Your task to perform on an android device: check google app version Image 0: 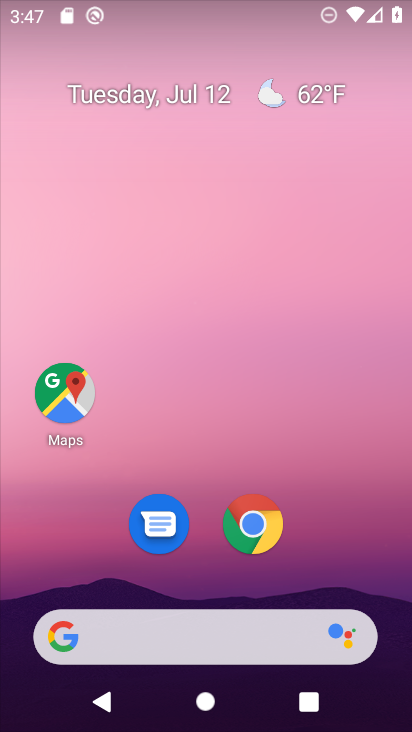
Step 0: drag from (325, 493) to (322, 1)
Your task to perform on an android device: check google app version Image 1: 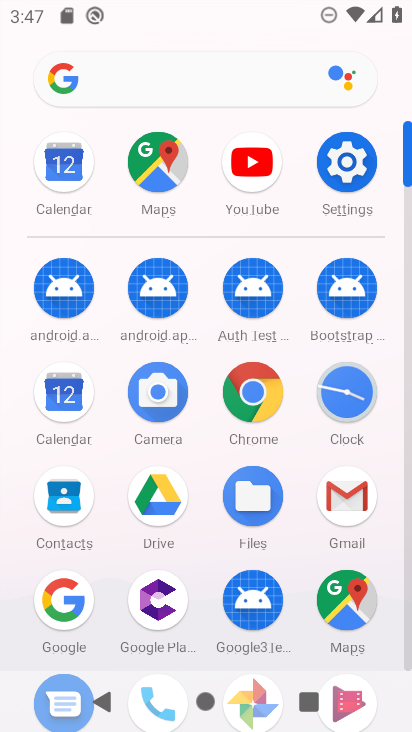
Step 1: click (68, 600)
Your task to perform on an android device: check google app version Image 2: 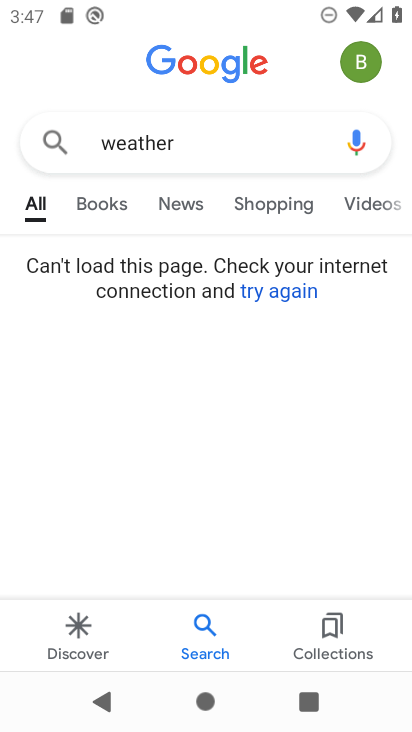
Step 2: click (364, 58)
Your task to perform on an android device: check google app version Image 3: 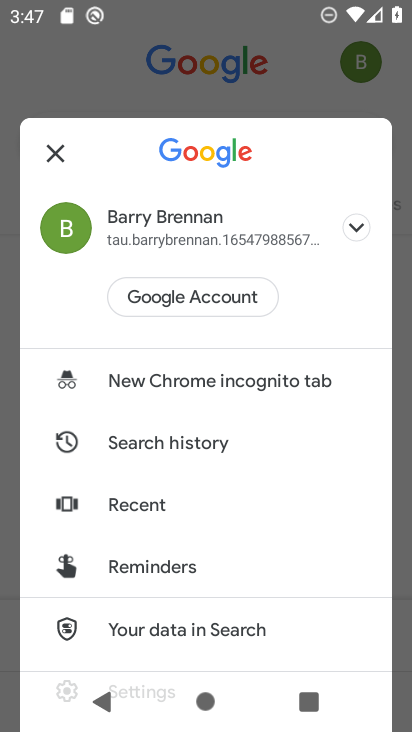
Step 3: drag from (315, 534) to (268, 93)
Your task to perform on an android device: check google app version Image 4: 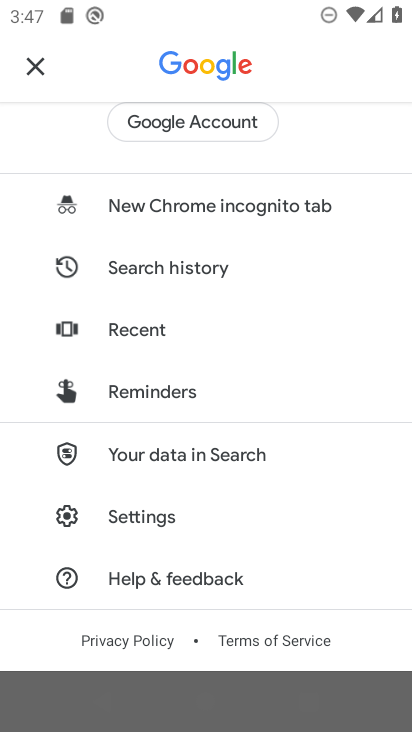
Step 4: click (151, 511)
Your task to perform on an android device: check google app version Image 5: 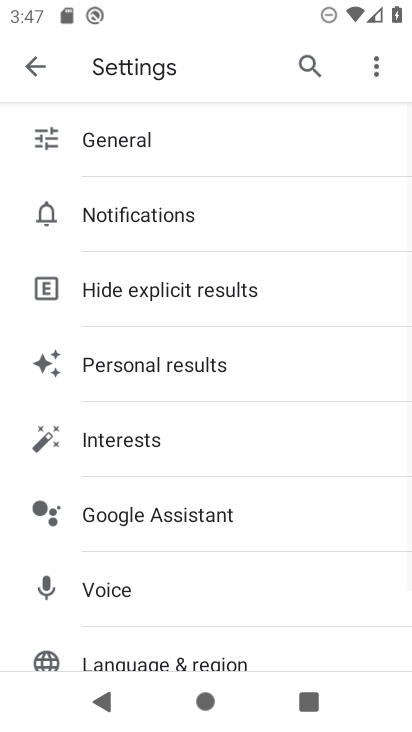
Step 5: drag from (219, 587) to (154, 317)
Your task to perform on an android device: check google app version Image 6: 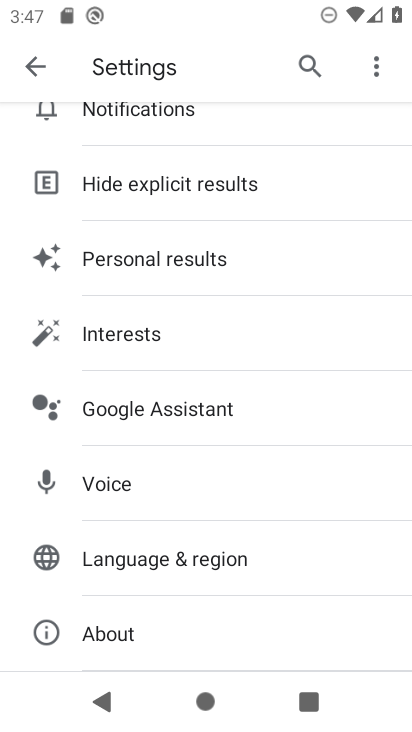
Step 6: click (117, 628)
Your task to perform on an android device: check google app version Image 7: 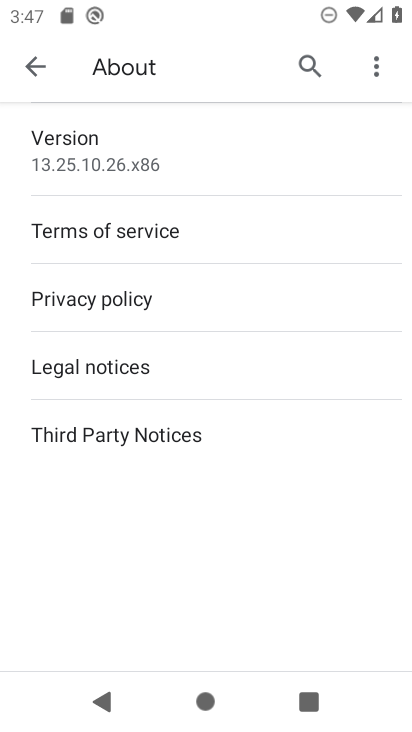
Step 7: task complete